Your task to perform on an android device: Is it going to rain this weekend? Image 0: 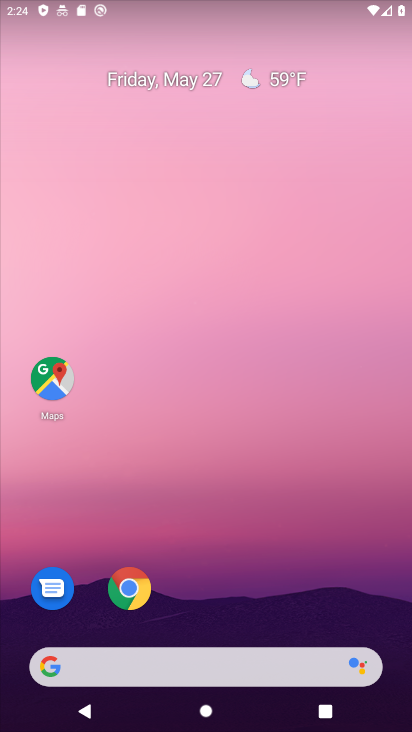
Step 0: drag from (300, 697) to (255, 210)
Your task to perform on an android device: Is it going to rain this weekend? Image 1: 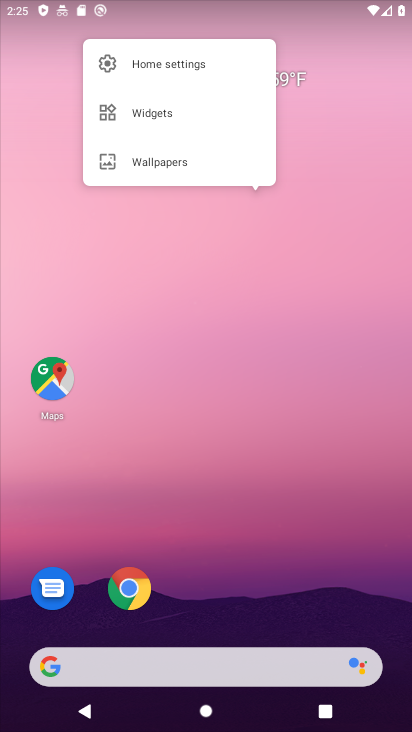
Step 1: drag from (194, 341) to (367, 491)
Your task to perform on an android device: Is it going to rain this weekend? Image 2: 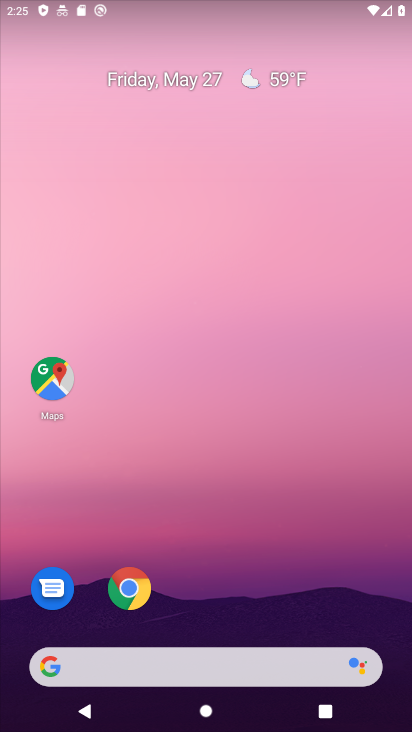
Step 2: click (359, 548)
Your task to perform on an android device: Is it going to rain this weekend? Image 3: 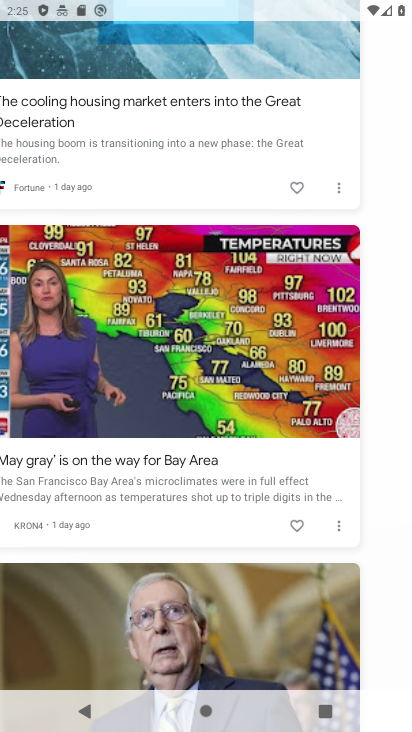
Step 3: drag from (55, 231) to (405, 382)
Your task to perform on an android device: Is it going to rain this weekend? Image 4: 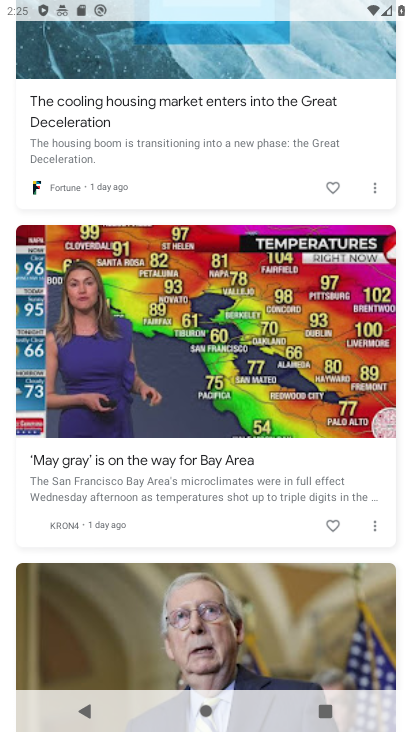
Step 4: drag from (195, 188) to (290, 666)
Your task to perform on an android device: Is it going to rain this weekend? Image 5: 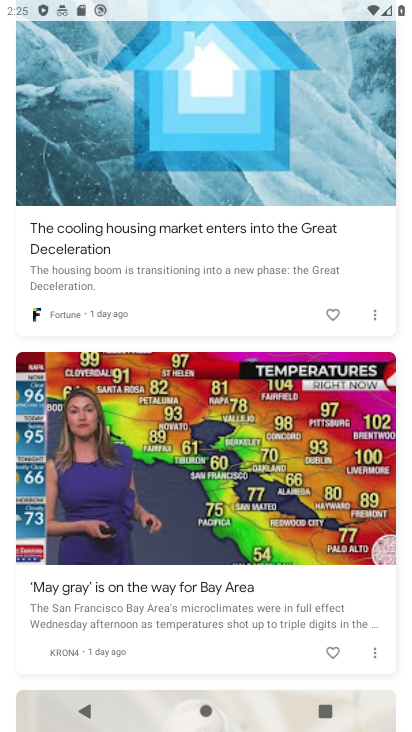
Step 5: drag from (200, 634) to (145, 603)
Your task to perform on an android device: Is it going to rain this weekend? Image 6: 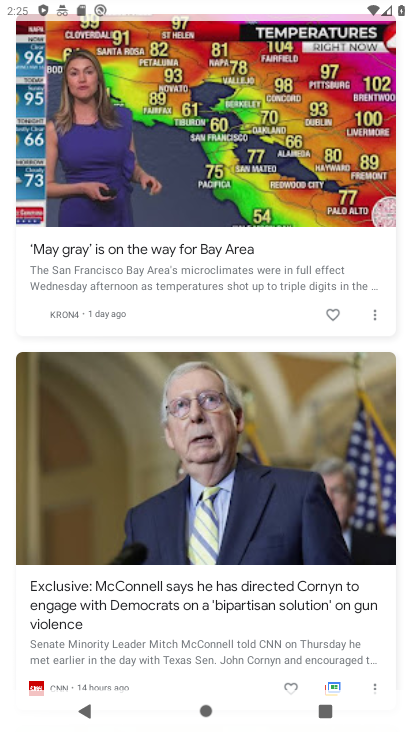
Step 6: click (177, 613)
Your task to perform on an android device: Is it going to rain this weekend? Image 7: 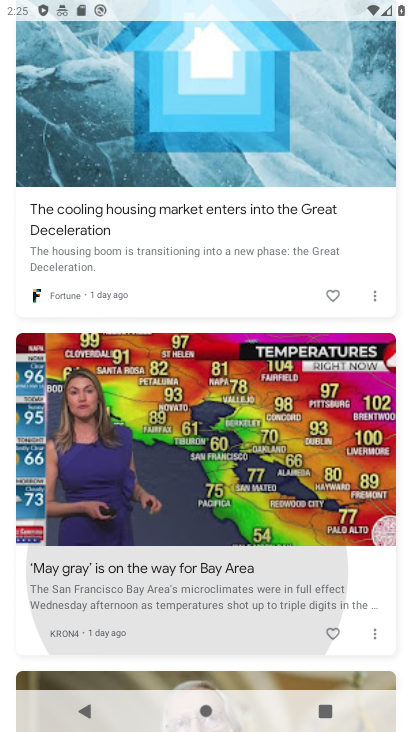
Step 7: drag from (196, 617) to (249, 719)
Your task to perform on an android device: Is it going to rain this weekend? Image 8: 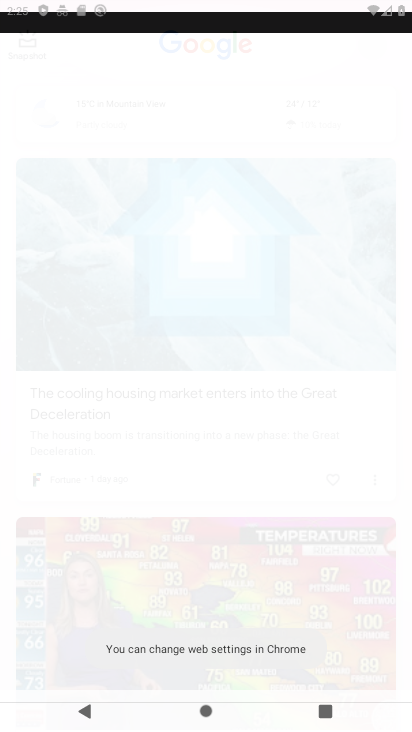
Step 8: drag from (208, 493) to (216, 572)
Your task to perform on an android device: Is it going to rain this weekend? Image 9: 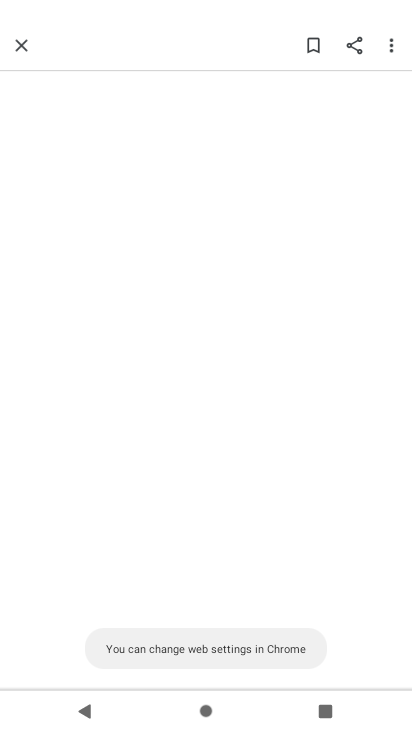
Step 9: drag from (229, 345) to (273, 673)
Your task to perform on an android device: Is it going to rain this weekend? Image 10: 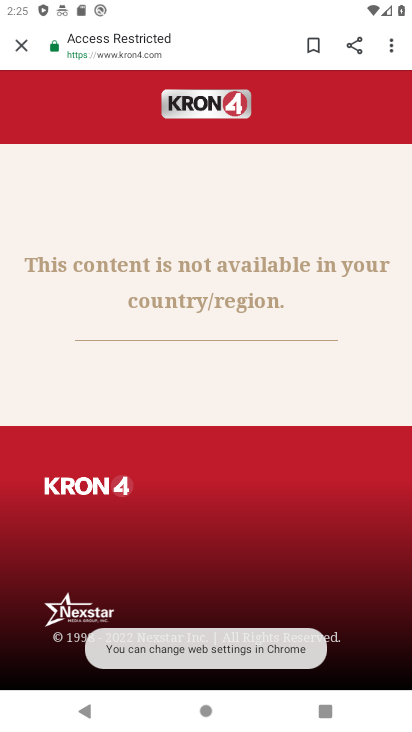
Step 10: press back button
Your task to perform on an android device: Is it going to rain this weekend? Image 11: 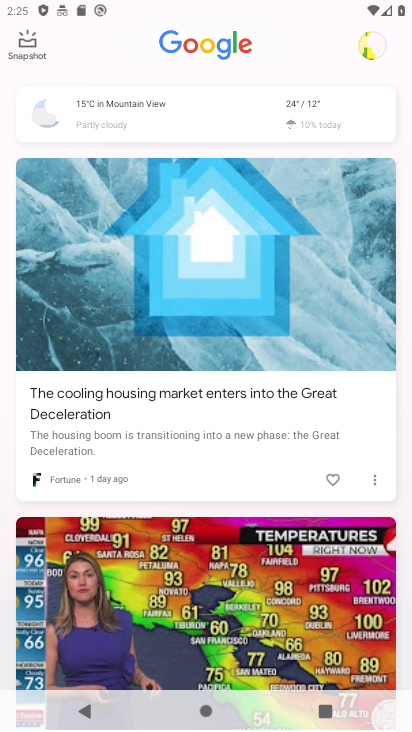
Step 11: drag from (227, 320) to (202, 730)
Your task to perform on an android device: Is it going to rain this weekend? Image 12: 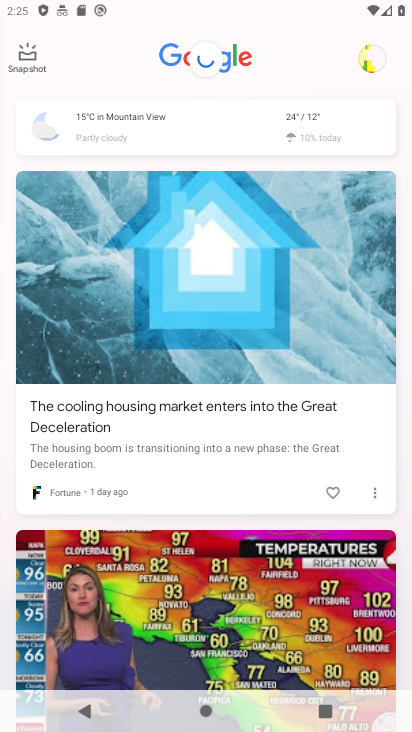
Step 12: click (177, 116)
Your task to perform on an android device: Is it going to rain this weekend? Image 13: 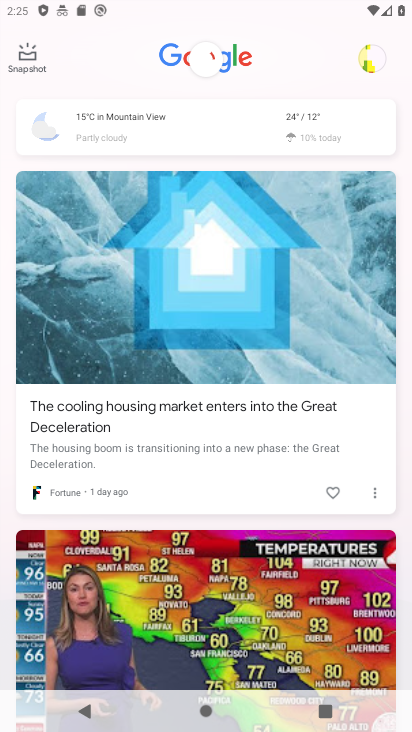
Step 13: click (179, 126)
Your task to perform on an android device: Is it going to rain this weekend? Image 14: 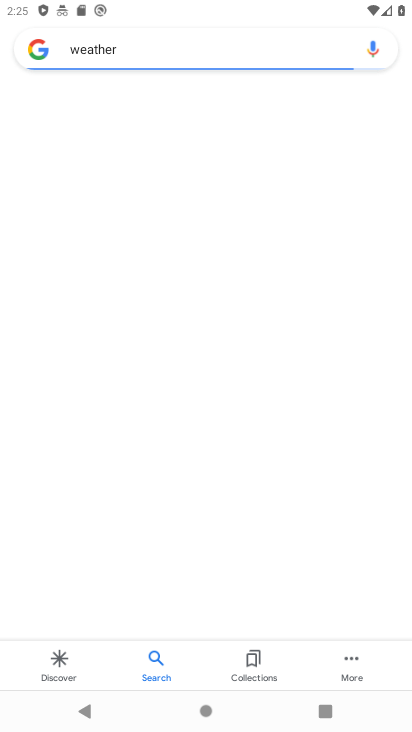
Step 14: click (237, 231)
Your task to perform on an android device: Is it going to rain this weekend? Image 15: 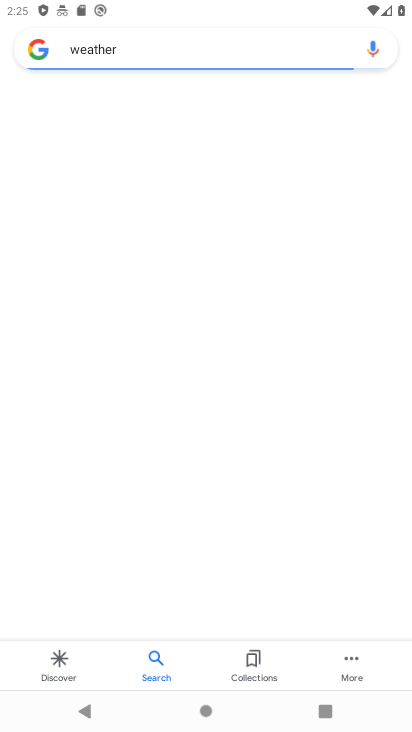
Step 15: drag from (219, 408) to (206, 201)
Your task to perform on an android device: Is it going to rain this weekend? Image 16: 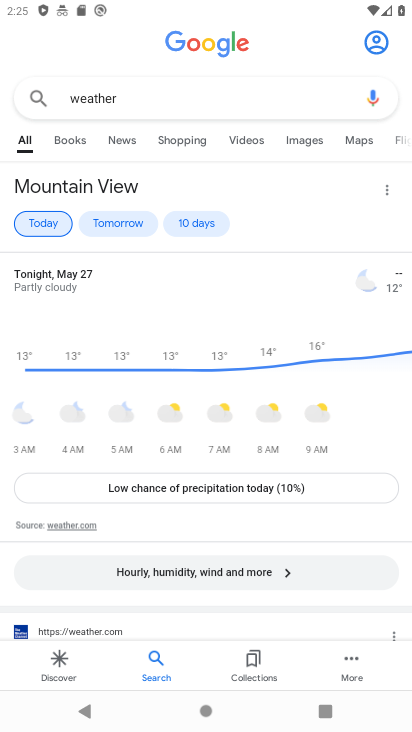
Step 16: click (201, 102)
Your task to perform on an android device: Is it going to rain this weekend? Image 17: 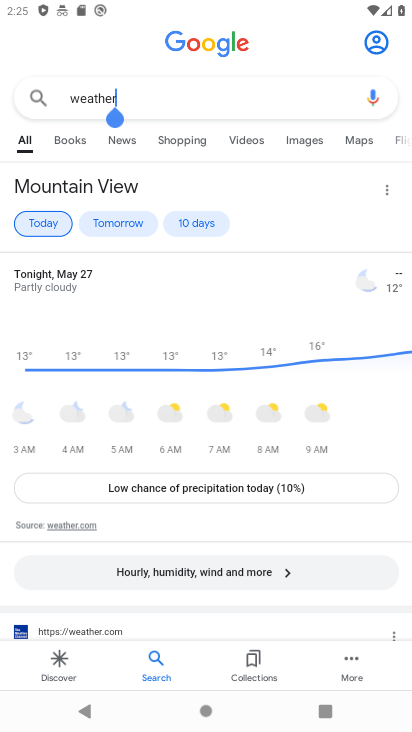
Step 17: drag from (171, 308) to (156, 166)
Your task to perform on an android device: Is it going to rain this weekend? Image 18: 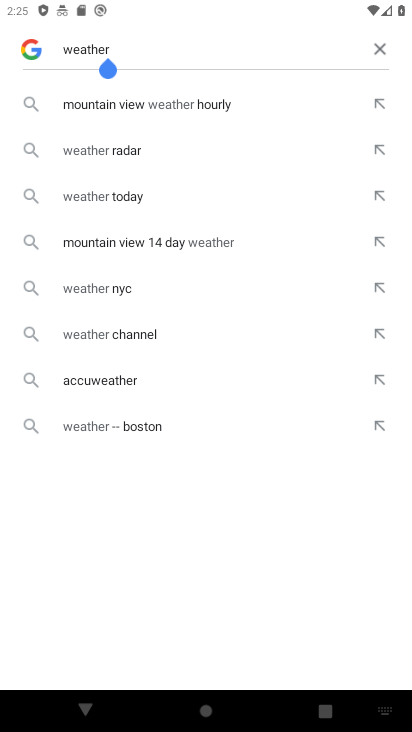
Step 18: drag from (164, 249) to (200, 493)
Your task to perform on an android device: Is it going to rain this weekend? Image 19: 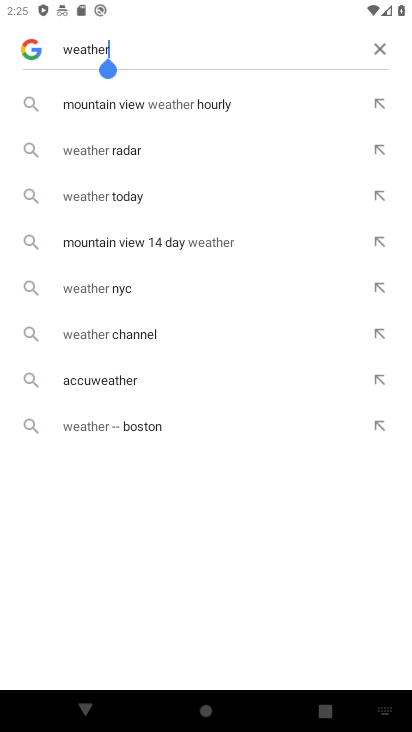
Step 19: drag from (196, 329) to (224, 542)
Your task to perform on an android device: Is it going to rain this weekend? Image 20: 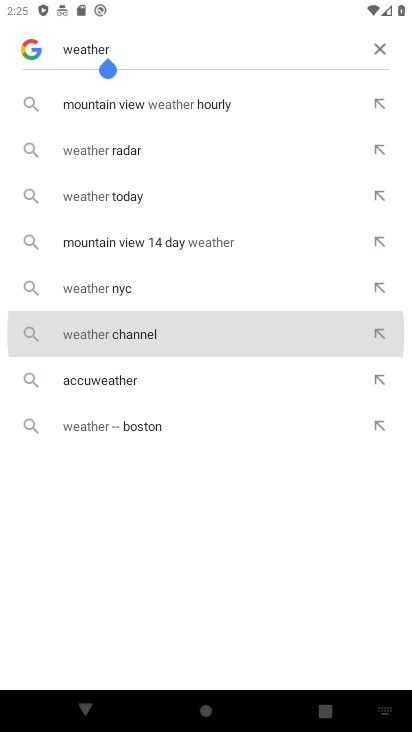
Step 20: drag from (178, 222) to (231, 586)
Your task to perform on an android device: Is it going to rain this weekend? Image 21: 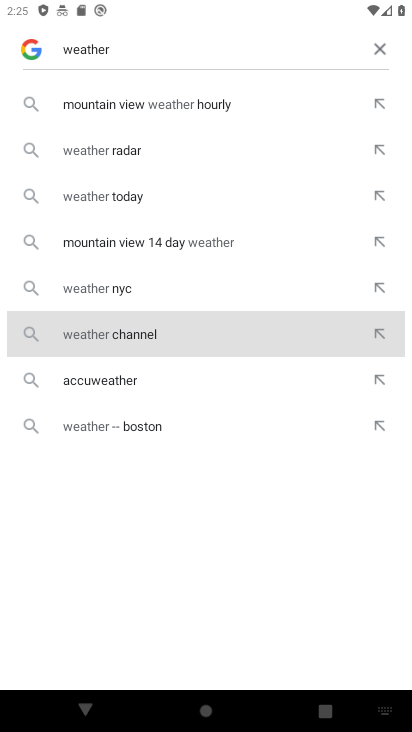
Step 21: click (211, 520)
Your task to perform on an android device: Is it going to rain this weekend? Image 22: 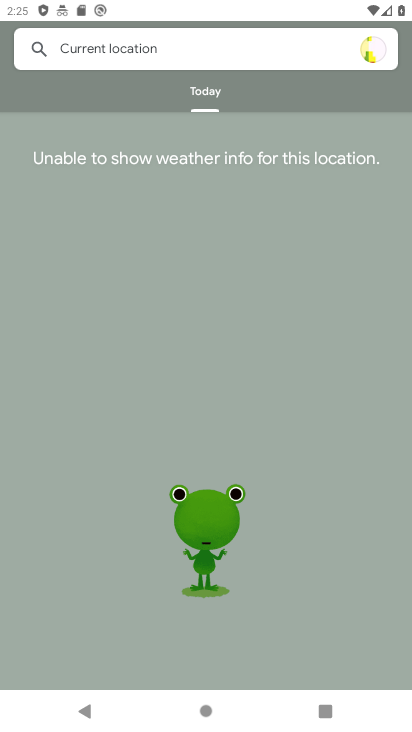
Step 22: task complete